Your task to perform on an android device: Open notification settings Image 0: 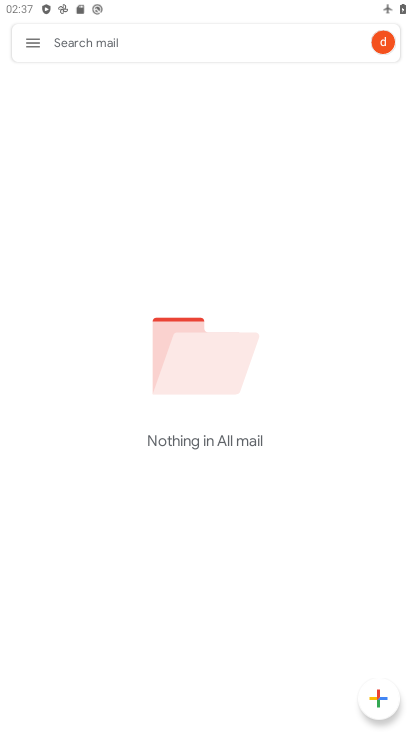
Step 0: press home button
Your task to perform on an android device: Open notification settings Image 1: 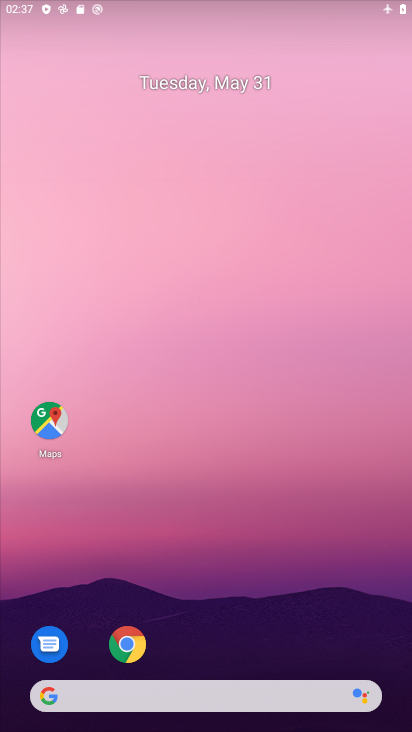
Step 1: drag from (279, 629) to (217, 170)
Your task to perform on an android device: Open notification settings Image 2: 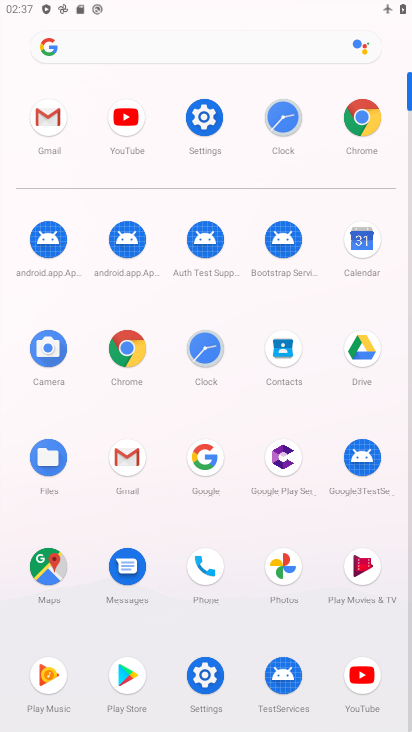
Step 2: click (209, 123)
Your task to perform on an android device: Open notification settings Image 3: 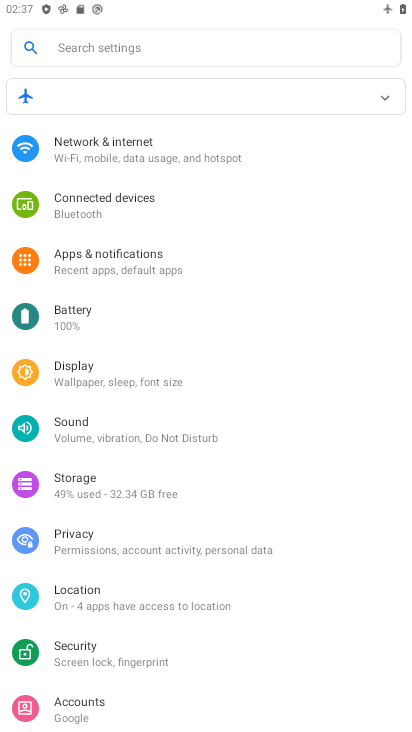
Step 3: click (96, 257)
Your task to perform on an android device: Open notification settings Image 4: 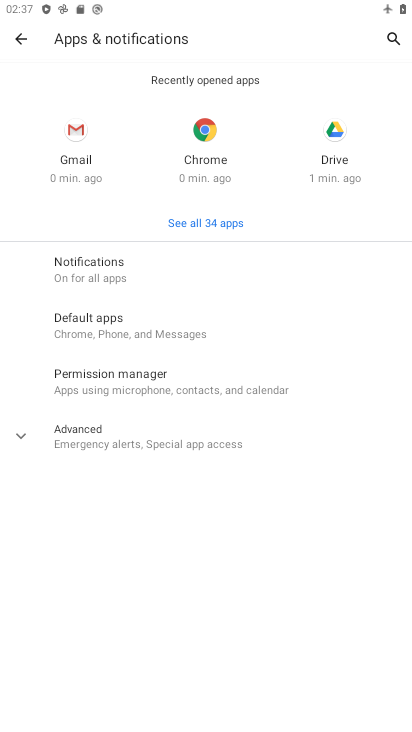
Step 4: click (90, 266)
Your task to perform on an android device: Open notification settings Image 5: 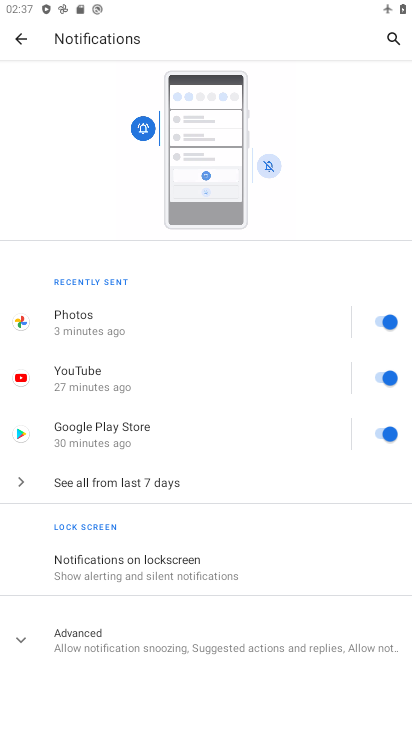
Step 5: task complete